Your task to perform on an android device: toggle priority inbox in the gmail app Image 0: 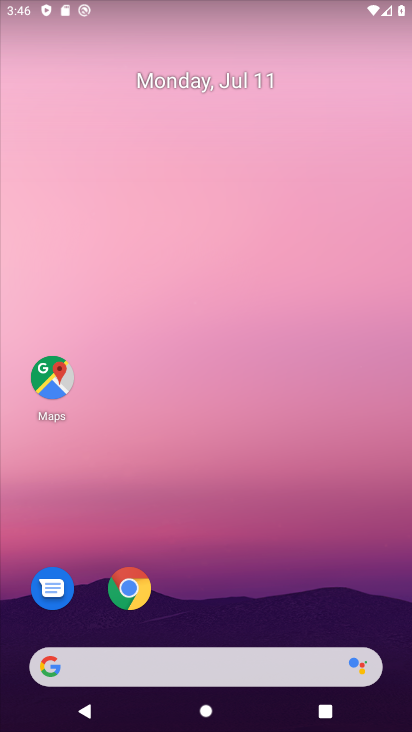
Step 0: drag from (375, 447) to (402, 140)
Your task to perform on an android device: toggle priority inbox in the gmail app Image 1: 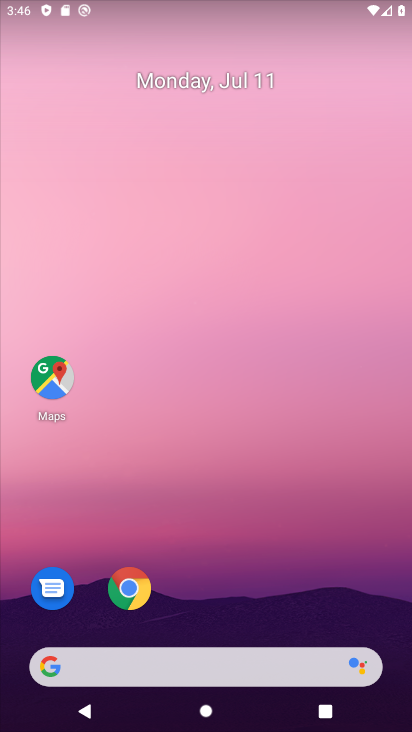
Step 1: drag from (350, 600) to (366, 72)
Your task to perform on an android device: toggle priority inbox in the gmail app Image 2: 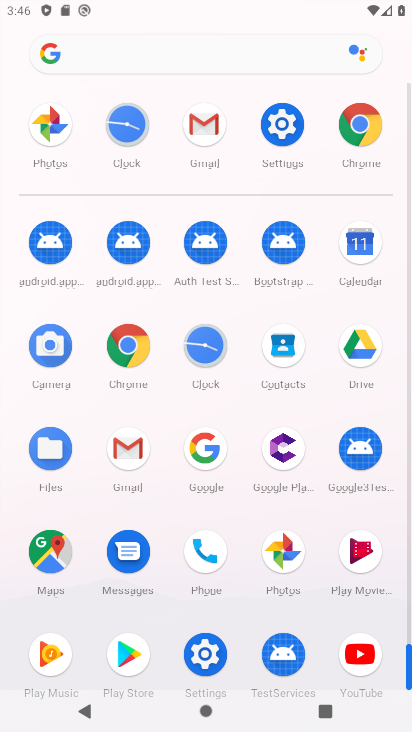
Step 2: click (139, 450)
Your task to perform on an android device: toggle priority inbox in the gmail app Image 3: 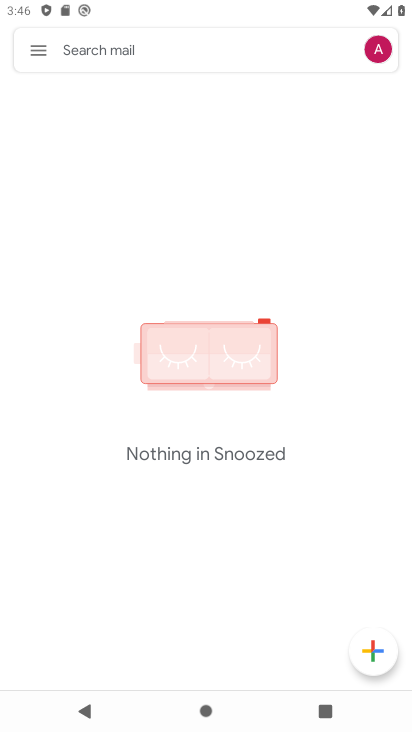
Step 3: click (36, 49)
Your task to perform on an android device: toggle priority inbox in the gmail app Image 4: 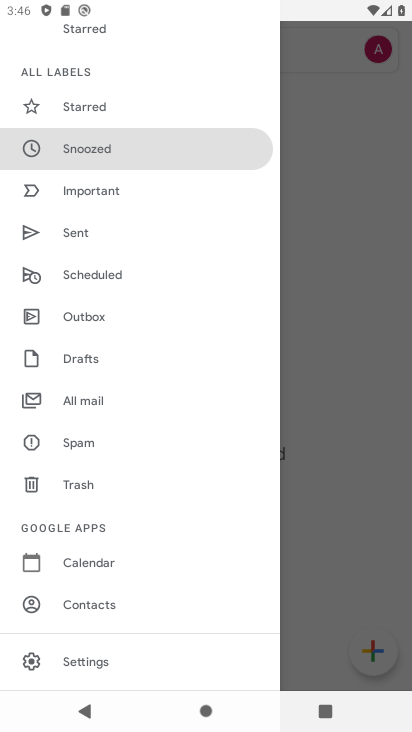
Step 4: drag from (196, 365) to (202, 230)
Your task to perform on an android device: toggle priority inbox in the gmail app Image 5: 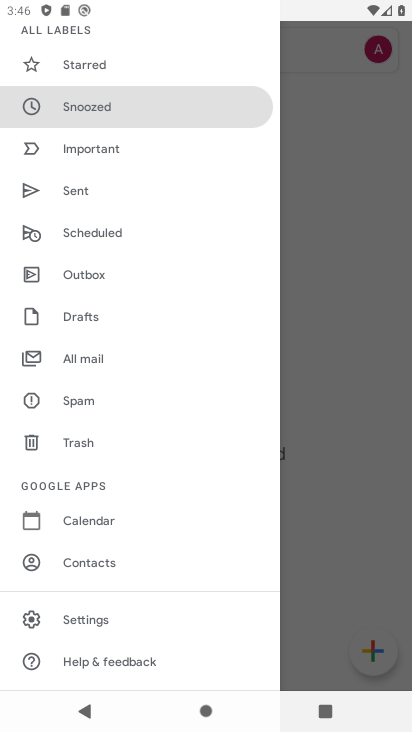
Step 5: click (124, 619)
Your task to perform on an android device: toggle priority inbox in the gmail app Image 6: 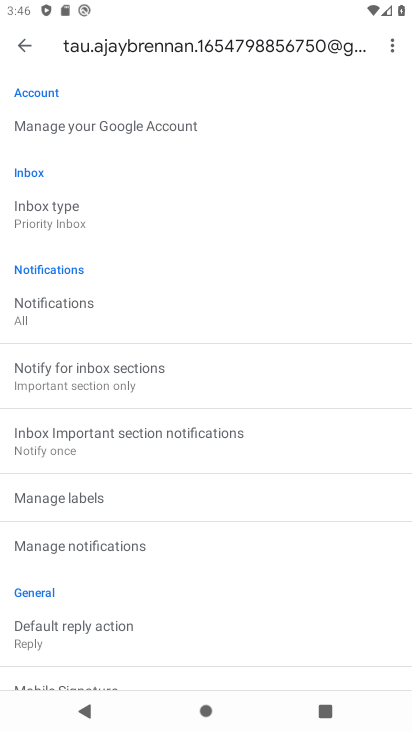
Step 6: task complete